Your task to perform on an android device: Show me the alarms in the clock app Image 0: 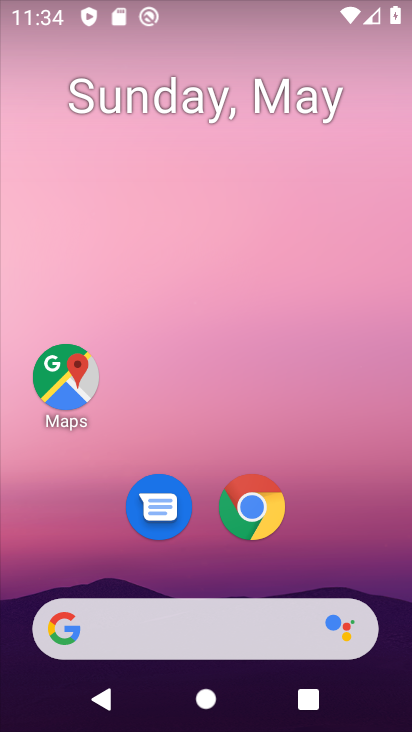
Step 0: drag from (236, 686) to (221, 139)
Your task to perform on an android device: Show me the alarms in the clock app Image 1: 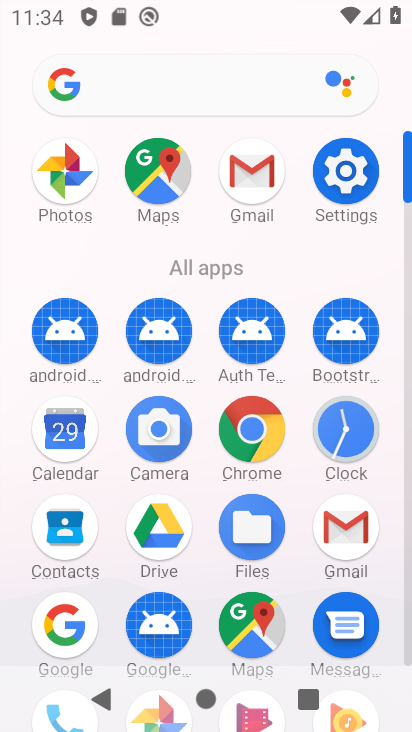
Step 1: click (338, 432)
Your task to perform on an android device: Show me the alarms in the clock app Image 2: 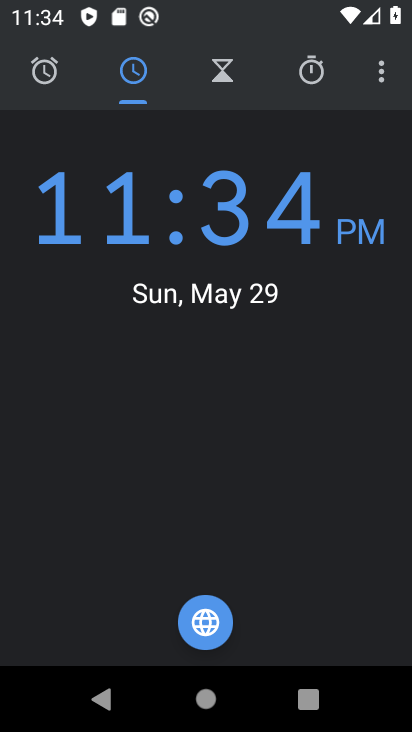
Step 2: click (44, 77)
Your task to perform on an android device: Show me the alarms in the clock app Image 3: 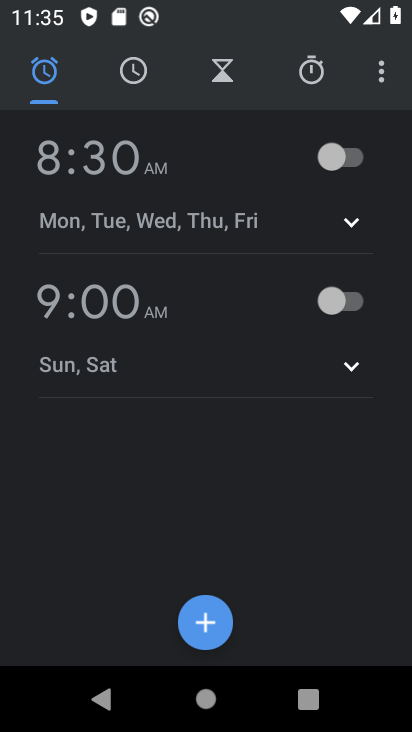
Step 3: task complete